Your task to perform on an android device: check android version Image 0: 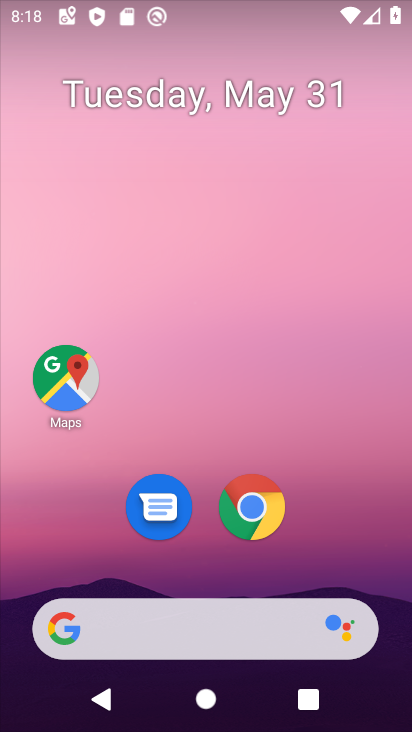
Step 0: drag from (362, 442) to (341, 19)
Your task to perform on an android device: check android version Image 1: 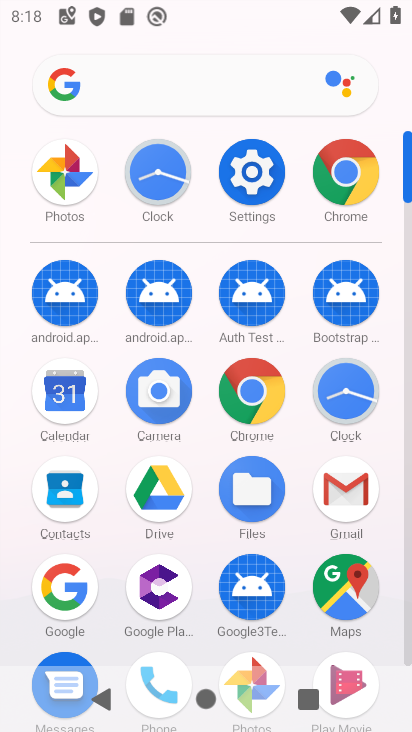
Step 1: click (252, 177)
Your task to perform on an android device: check android version Image 2: 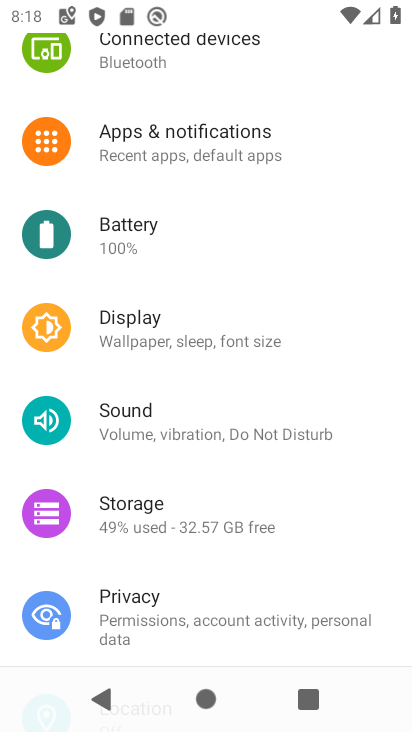
Step 2: drag from (244, 614) to (239, 146)
Your task to perform on an android device: check android version Image 3: 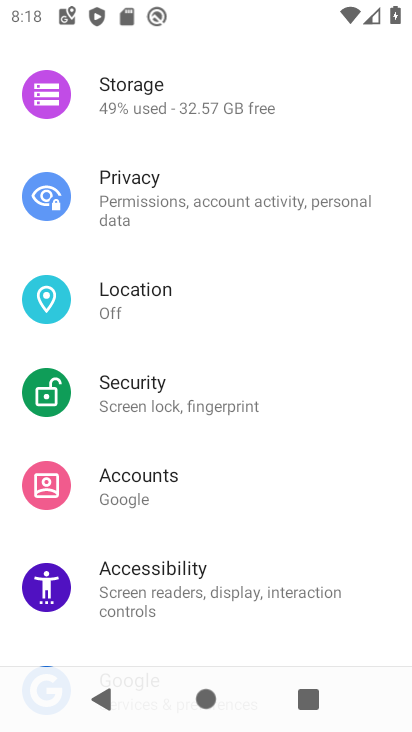
Step 3: drag from (227, 653) to (257, 212)
Your task to perform on an android device: check android version Image 4: 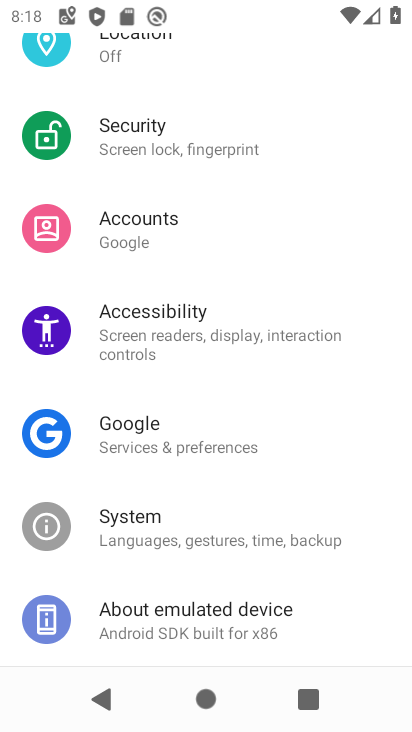
Step 4: click (197, 619)
Your task to perform on an android device: check android version Image 5: 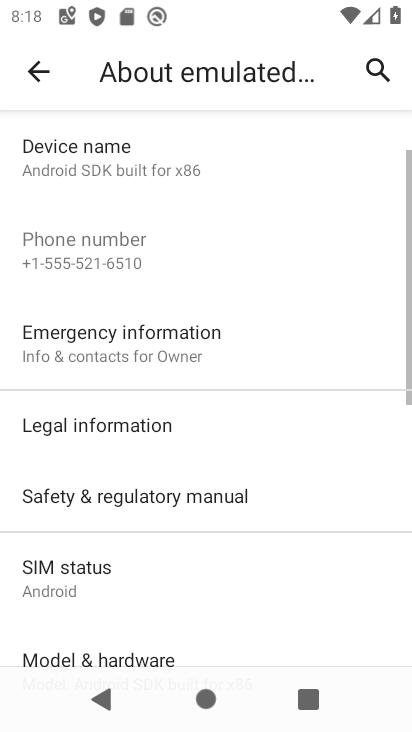
Step 5: drag from (214, 534) to (239, 78)
Your task to perform on an android device: check android version Image 6: 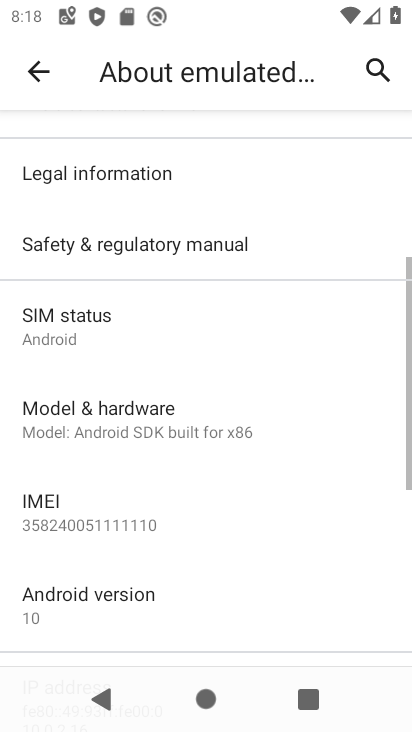
Step 6: click (102, 621)
Your task to perform on an android device: check android version Image 7: 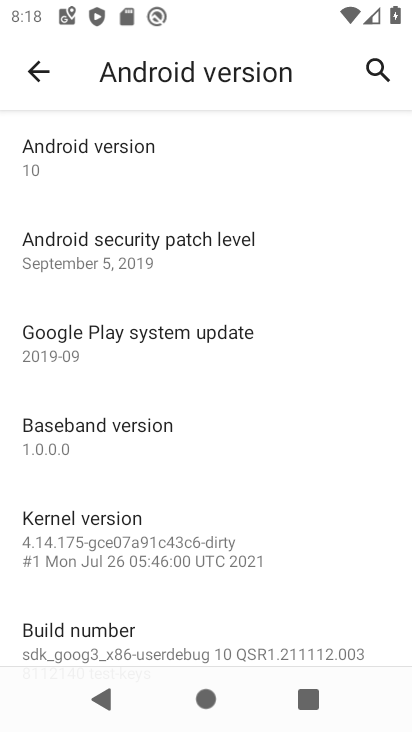
Step 7: task complete